Your task to perform on an android device: turn off priority inbox in the gmail app Image 0: 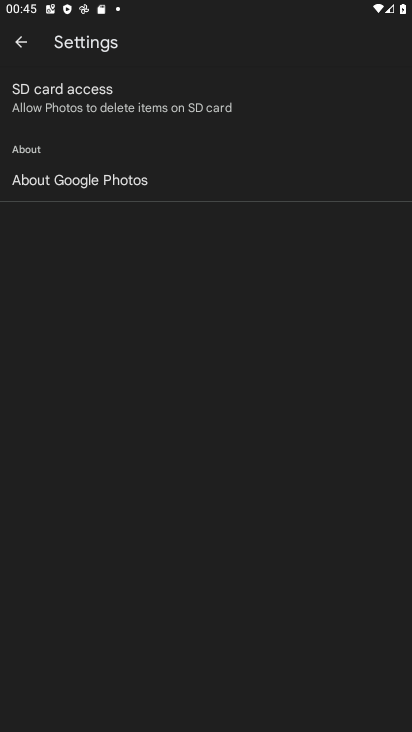
Step 0: press home button
Your task to perform on an android device: turn off priority inbox in the gmail app Image 1: 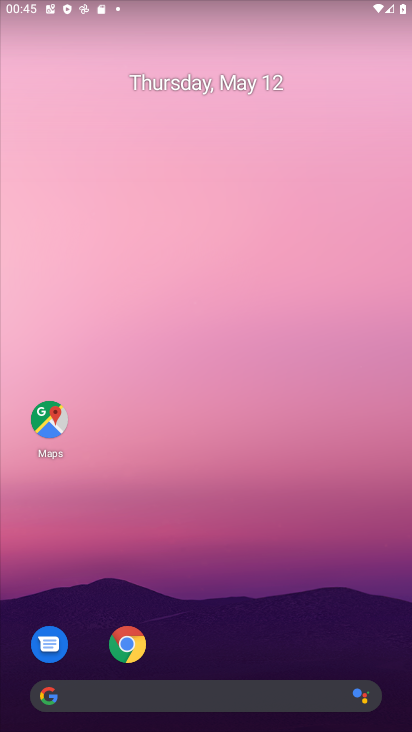
Step 1: drag from (281, 625) to (208, 45)
Your task to perform on an android device: turn off priority inbox in the gmail app Image 2: 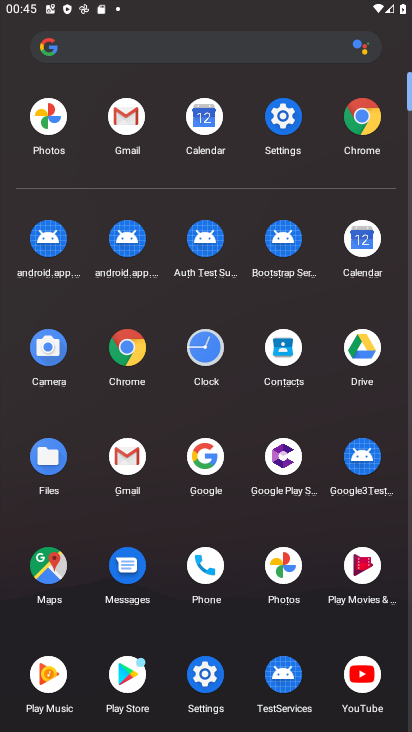
Step 2: click (138, 145)
Your task to perform on an android device: turn off priority inbox in the gmail app Image 3: 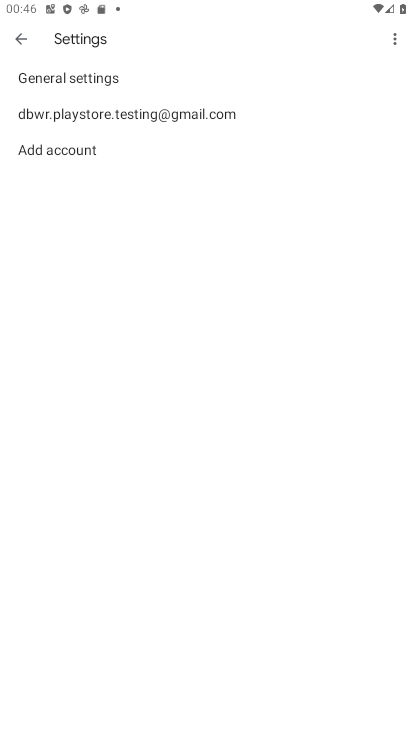
Step 3: click (162, 127)
Your task to perform on an android device: turn off priority inbox in the gmail app Image 4: 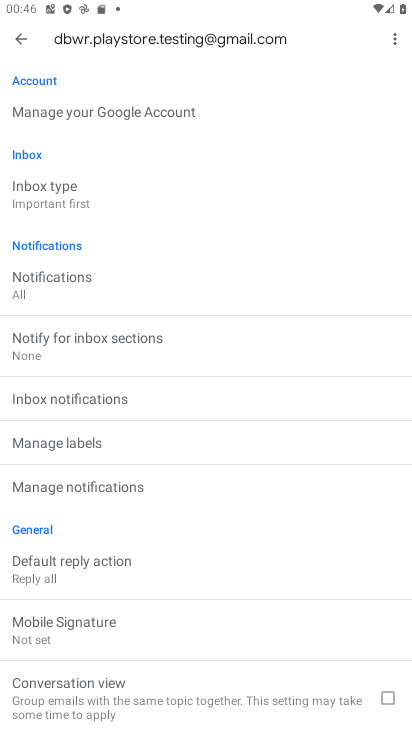
Step 4: click (126, 186)
Your task to perform on an android device: turn off priority inbox in the gmail app Image 5: 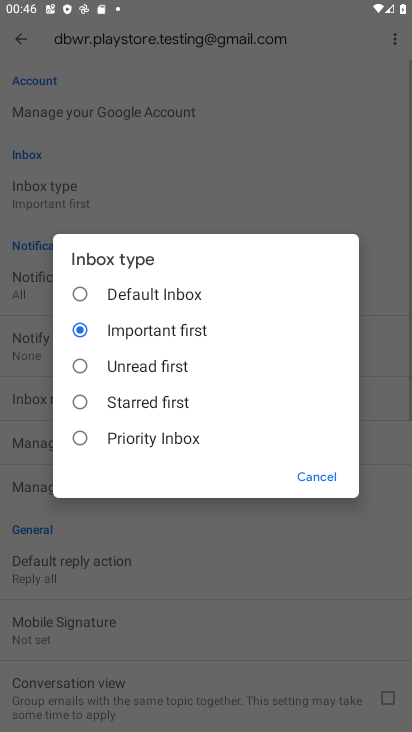
Step 5: click (146, 292)
Your task to perform on an android device: turn off priority inbox in the gmail app Image 6: 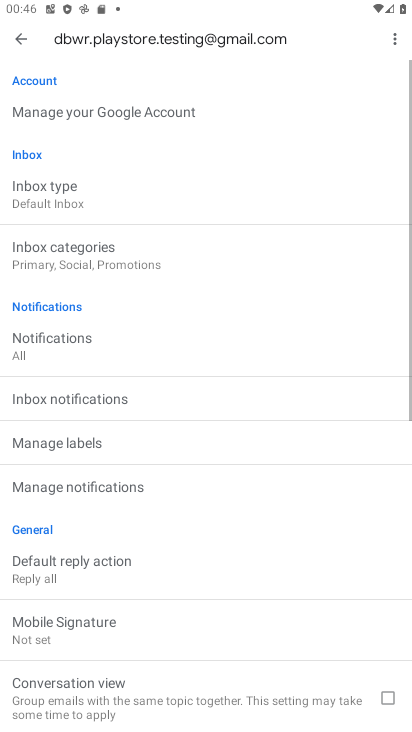
Step 6: task complete